Your task to perform on an android device: Go to Google maps Image 0: 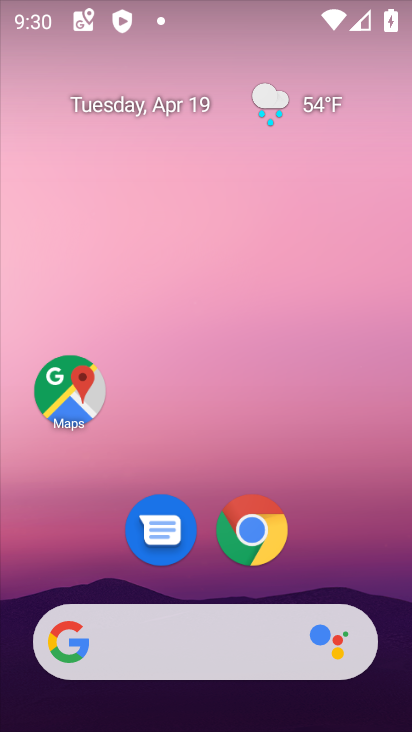
Step 0: click (64, 394)
Your task to perform on an android device: Go to Google maps Image 1: 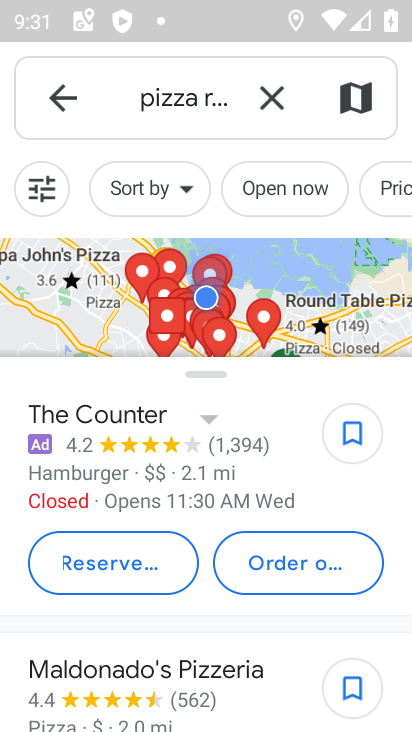
Step 1: task complete